Your task to perform on an android device: Open sound settings Image 0: 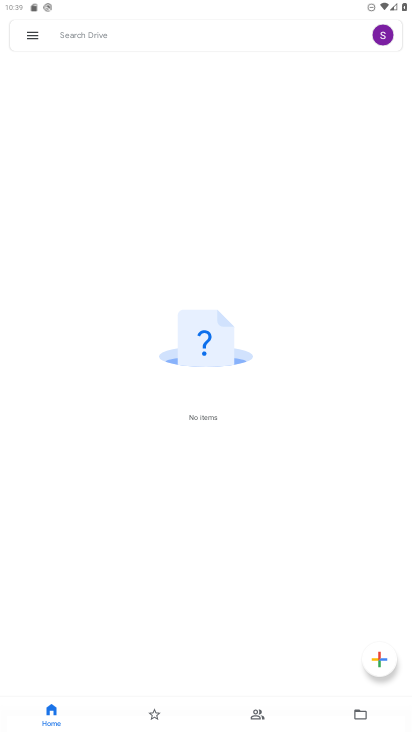
Step 0: press home button
Your task to perform on an android device: Open sound settings Image 1: 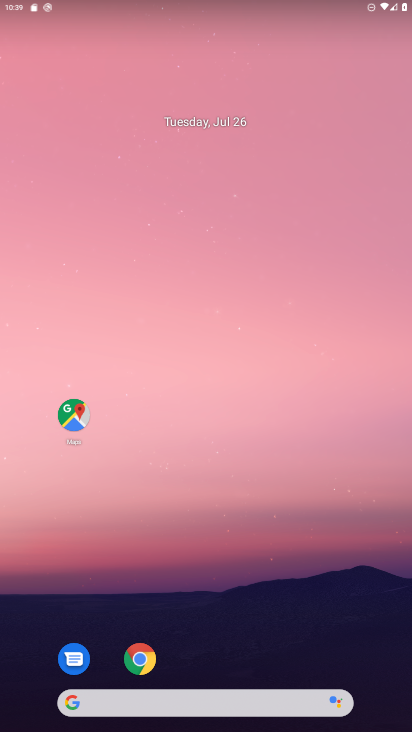
Step 1: drag from (381, 684) to (274, 163)
Your task to perform on an android device: Open sound settings Image 2: 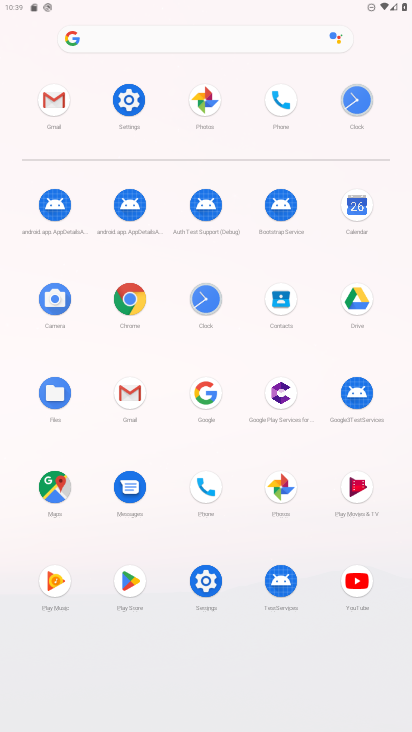
Step 2: click (205, 576)
Your task to perform on an android device: Open sound settings Image 3: 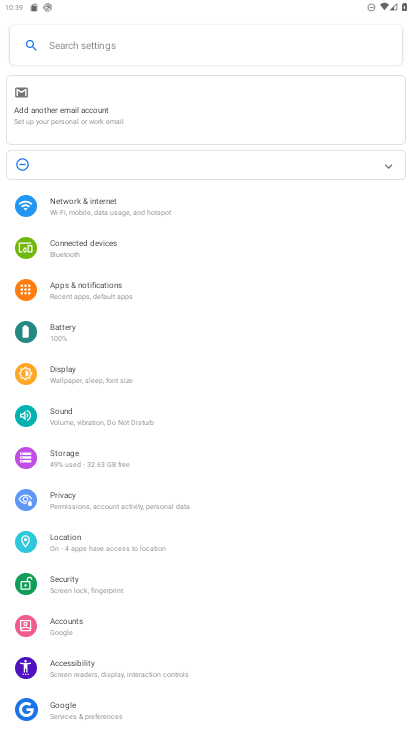
Step 3: click (59, 402)
Your task to perform on an android device: Open sound settings Image 4: 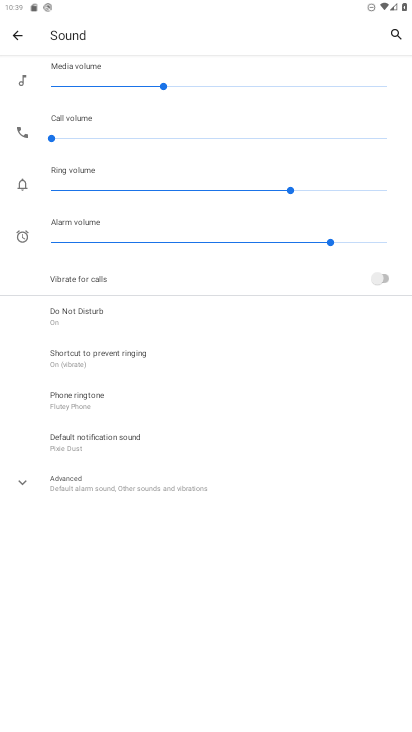
Step 4: click (21, 485)
Your task to perform on an android device: Open sound settings Image 5: 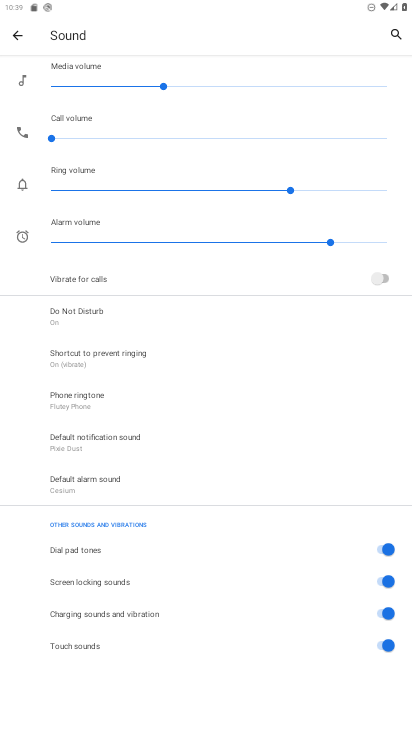
Step 5: click (41, 324)
Your task to perform on an android device: Open sound settings Image 6: 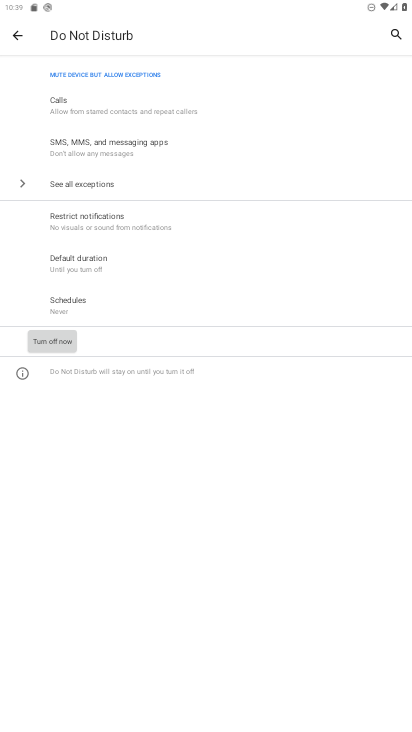
Step 6: click (14, 36)
Your task to perform on an android device: Open sound settings Image 7: 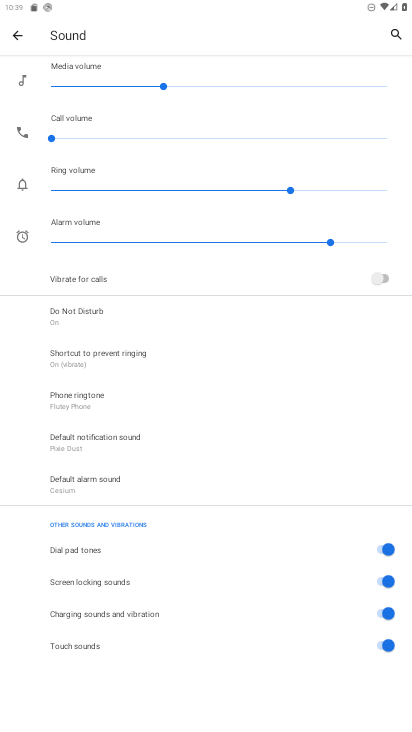
Step 7: task complete